Your task to perform on an android device: turn on improve location accuracy Image 0: 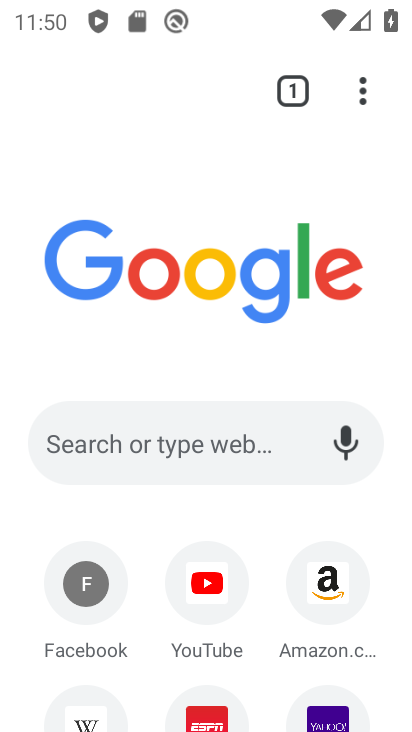
Step 0: press home button
Your task to perform on an android device: turn on improve location accuracy Image 1: 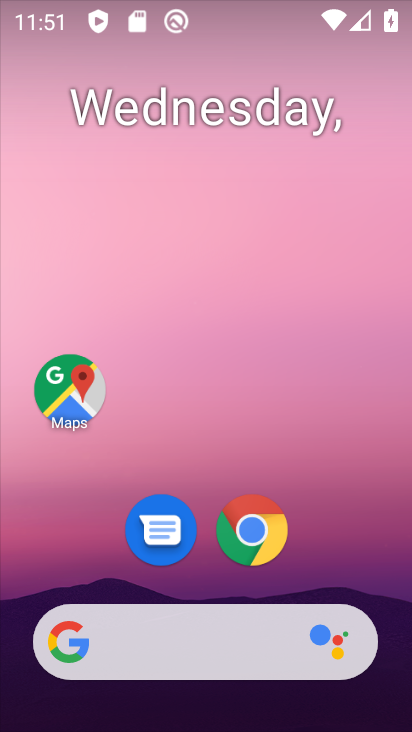
Step 1: drag from (221, 612) to (137, 46)
Your task to perform on an android device: turn on improve location accuracy Image 2: 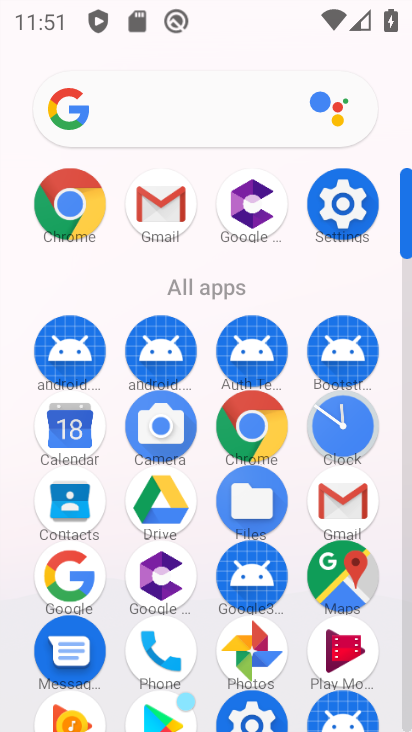
Step 2: click (350, 214)
Your task to perform on an android device: turn on improve location accuracy Image 3: 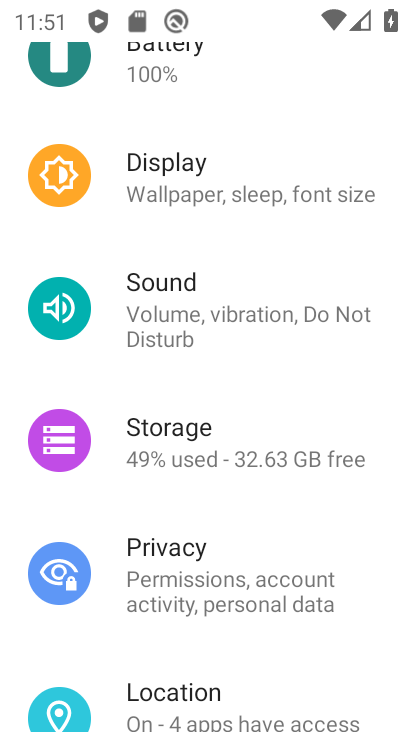
Step 3: click (178, 708)
Your task to perform on an android device: turn on improve location accuracy Image 4: 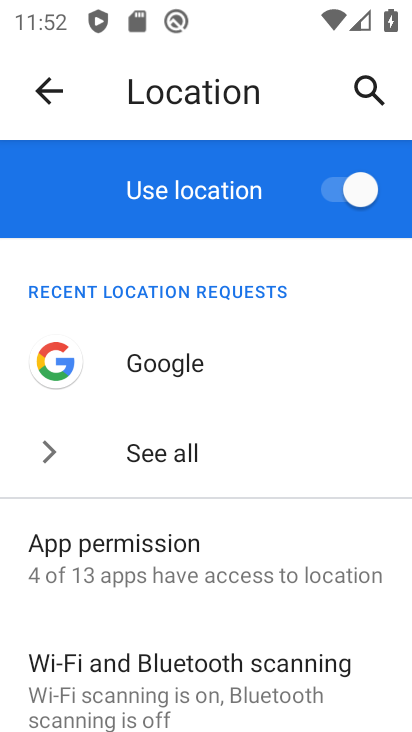
Step 4: drag from (176, 639) to (178, 115)
Your task to perform on an android device: turn on improve location accuracy Image 5: 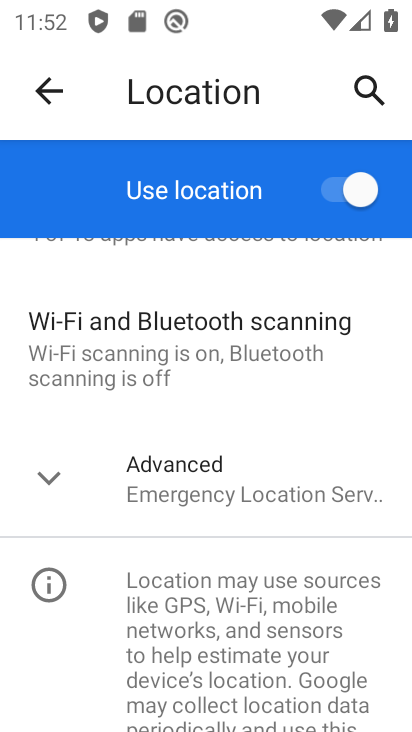
Step 5: click (167, 510)
Your task to perform on an android device: turn on improve location accuracy Image 6: 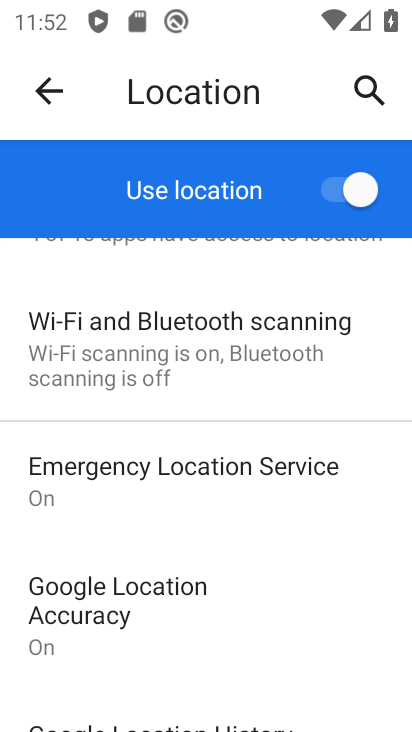
Step 6: drag from (125, 610) to (91, 245)
Your task to perform on an android device: turn on improve location accuracy Image 7: 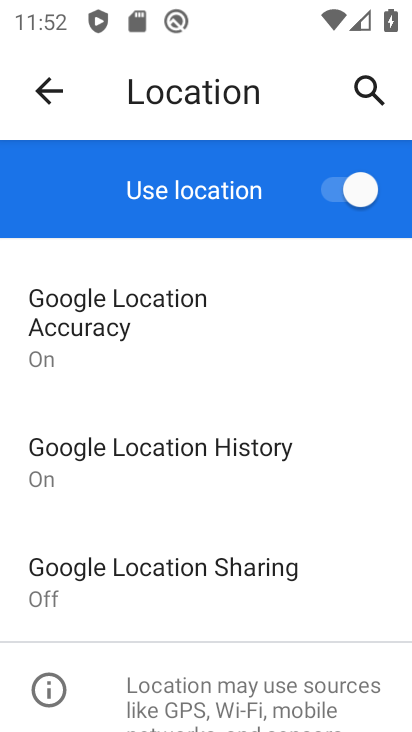
Step 7: click (100, 319)
Your task to perform on an android device: turn on improve location accuracy Image 8: 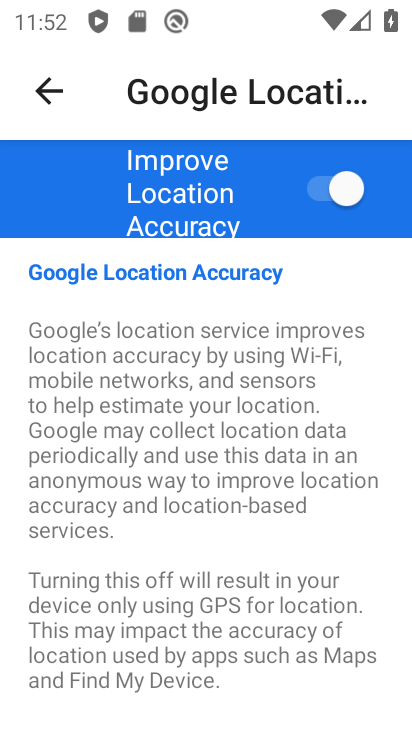
Step 8: task complete